Your task to perform on an android device: Show me popular games on the Play Store Image 0: 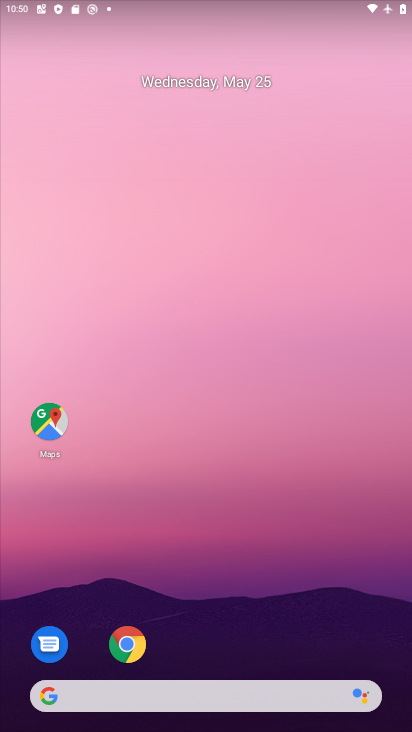
Step 0: drag from (231, 602) to (220, 86)
Your task to perform on an android device: Show me popular games on the Play Store Image 1: 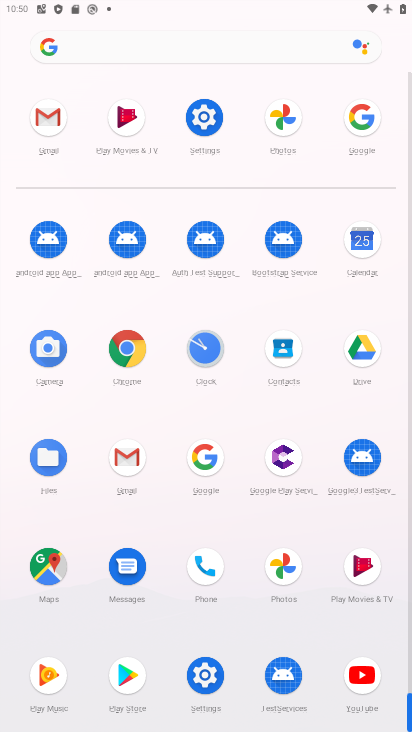
Step 1: click (135, 670)
Your task to perform on an android device: Show me popular games on the Play Store Image 2: 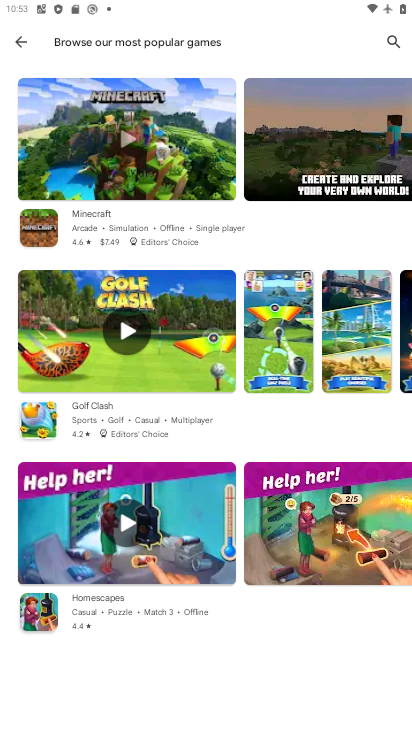
Step 2: task complete